Your task to perform on an android device: read, delete, or share a saved page in the chrome app Image 0: 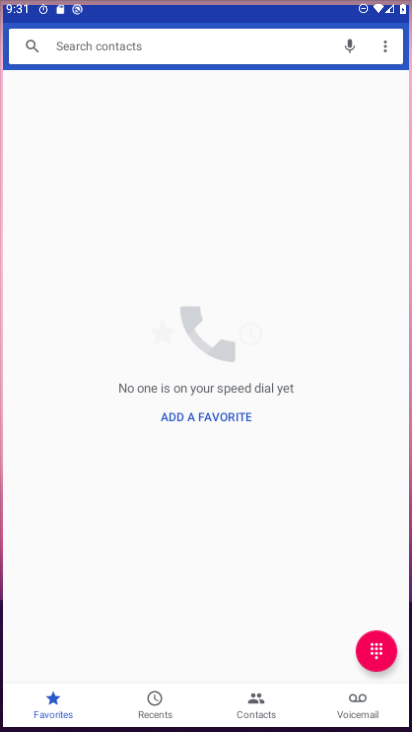
Step 0: press home button
Your task to perform on an android device: read, delete, or share a saved page in the chrome app Image 1: 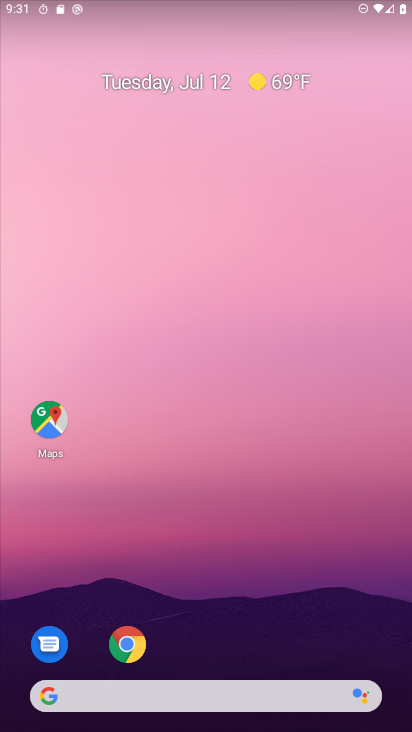
Step 1: click (120, 645)
Your task to perform on an android device: read, delete, or share a saved page in the chrome app Image 2: 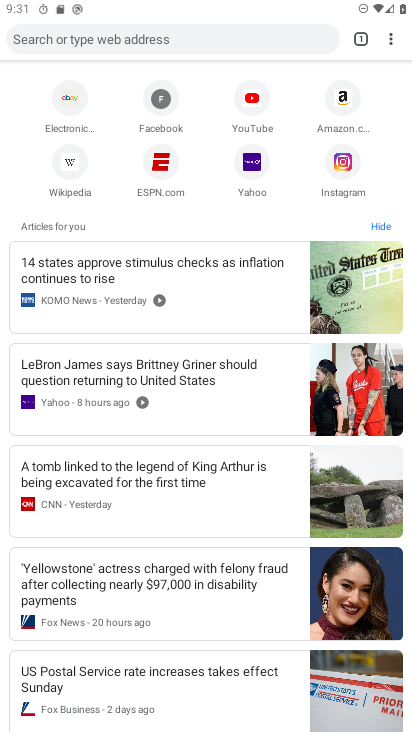
Step 2: click (392, 37)
Your task to perform on an android device: read, delete, or share a saved page in the chrome app Image 3: 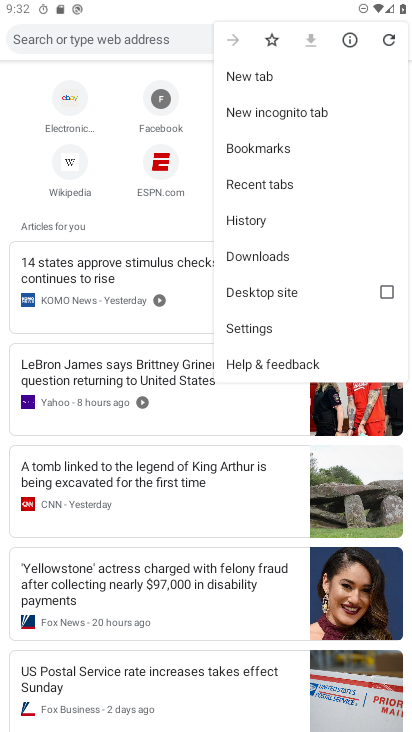
Step 3: click (301, 257)
Your task to perform on an android device: read, delete, or share a saved page in the chrome app Image 4: 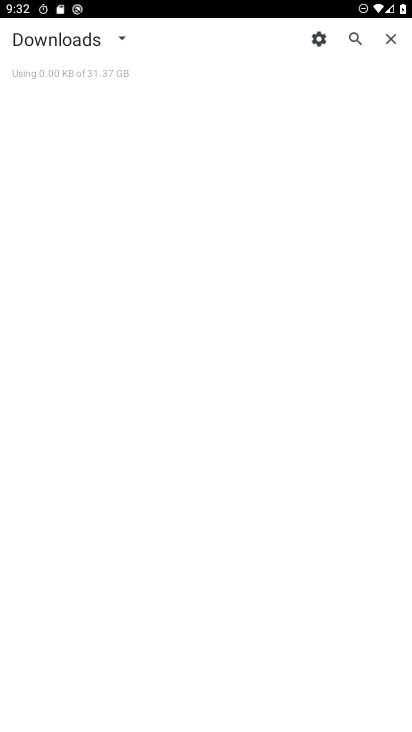
Step 4: task complete